Your task to perform on an android device: Go to Google maps Image 0: 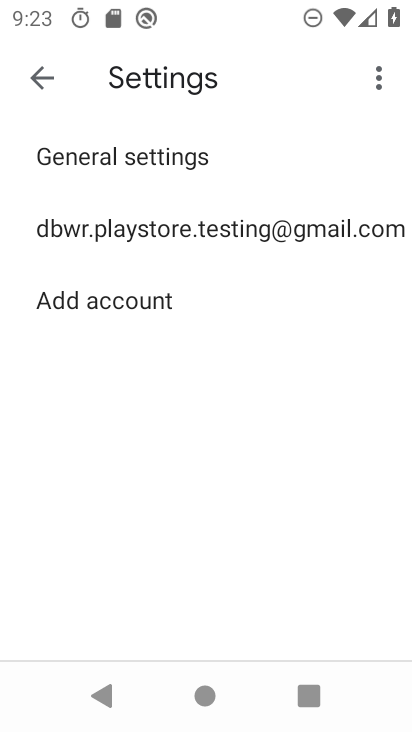
Step 0: press home button
Your task to perform on an android device: Go to Google maps Image 1: 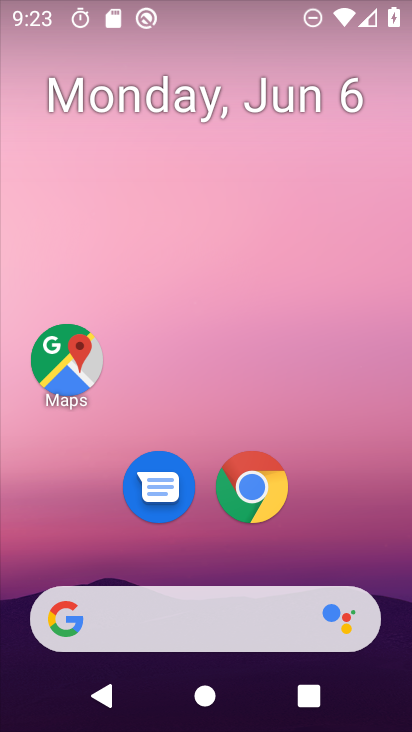
Step 1: drag from (398, 652) to (294, 19)
Your task to perform on an android device: Go to Google maps Image 2: 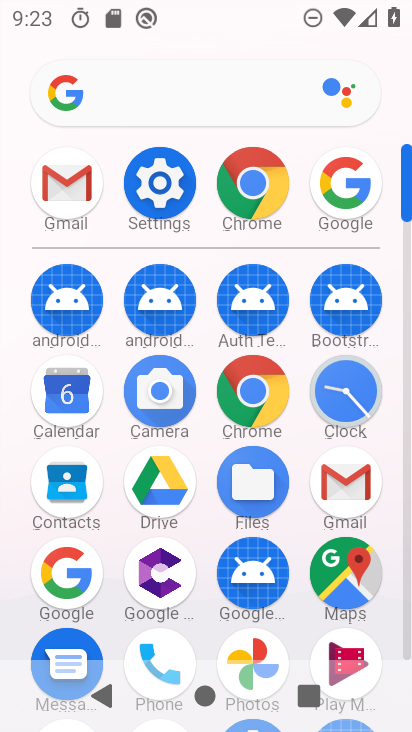
Step 2: click (330, 565)
Your task to perform on an android device: Go to Google maps Image 3: 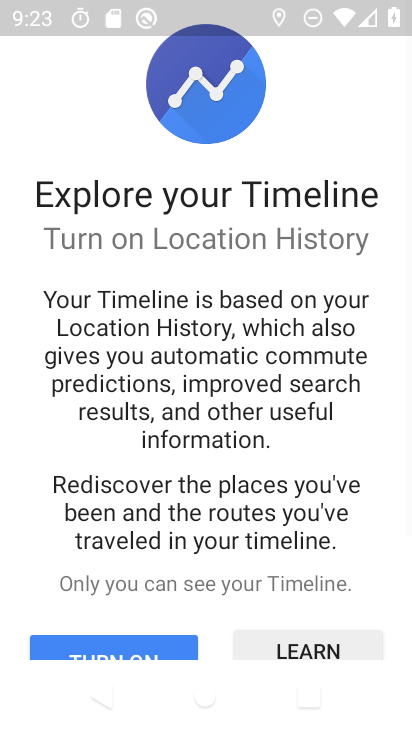
Step 3: task complete